Your task to perform on an android device: set the timer Image 0: 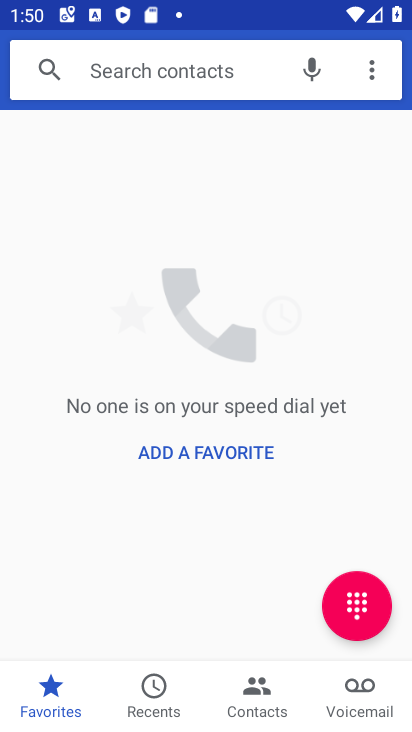
Step 0: press home button
Your task to perform on an android device: set the timer Image 1: 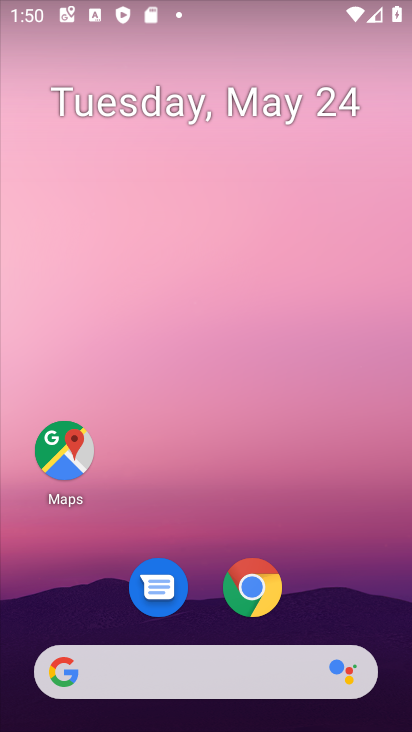
Step 1: drag from (246, 685) to (252, 220)
Your task to perform on an android device: set the timer Image 2: 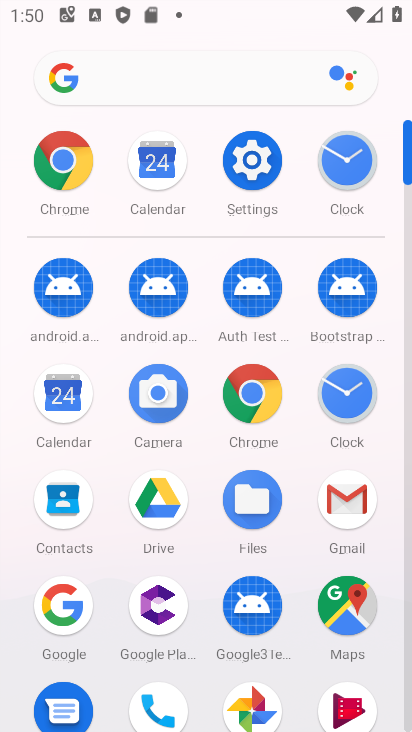
Step 2: click (338, 395)
Your task to perform on an android device: set the timer Image 3: 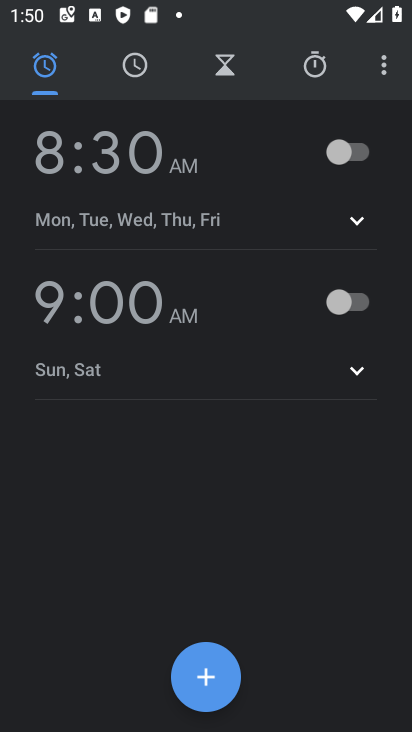
Step 3: click (218, 64)
Your task to perform on an android device: set the timer Image 4: 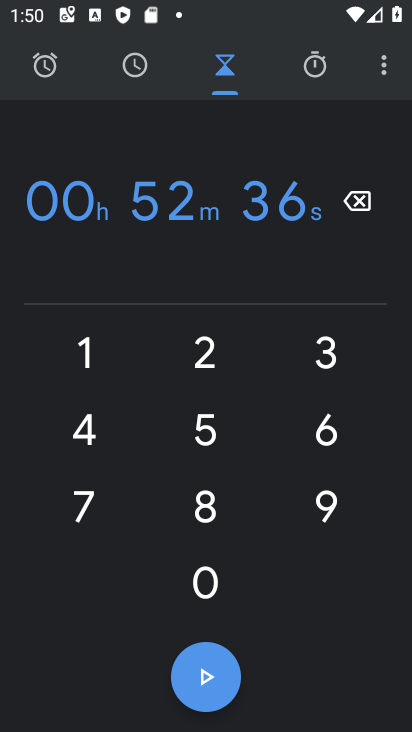
Step 4: click (218, 346)
Your task to perform on an android device: set the timer Image 5: 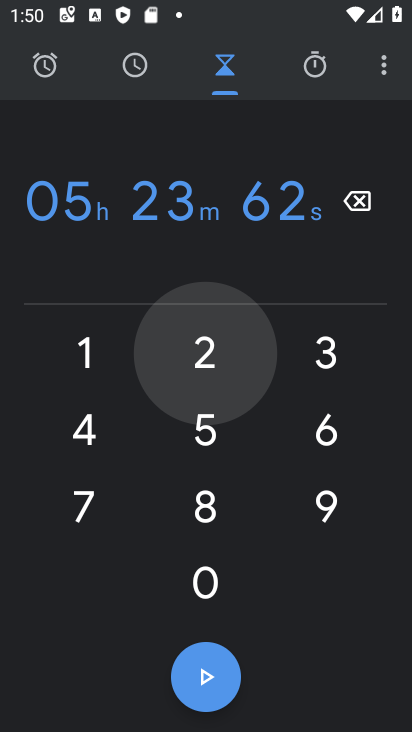
Step 5: click (223, 453)
Your task to perform on an android device: set the timer Image 6: 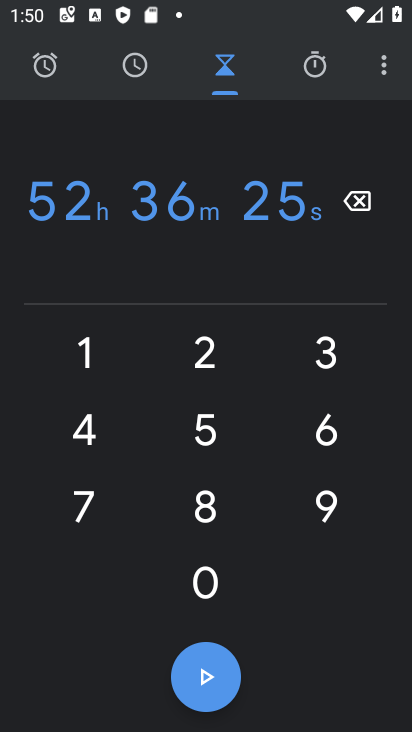
Step 6: click (340, 450)
Your task to perform on an android device: set the timer Image 7: 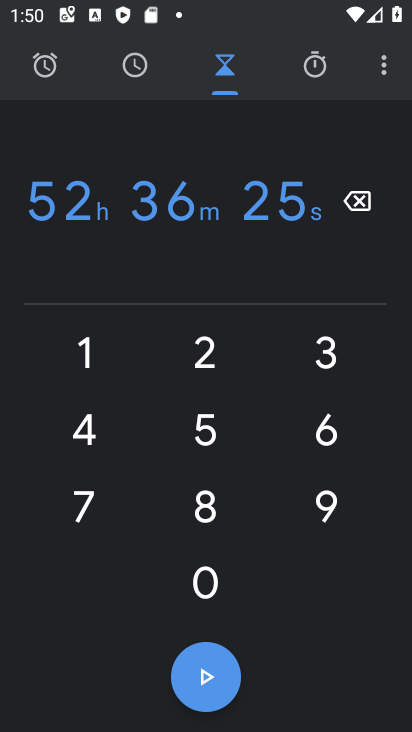
Step 7: task complete